Your task to perform on an android device: search for starred emails in the gmail app Image 0: 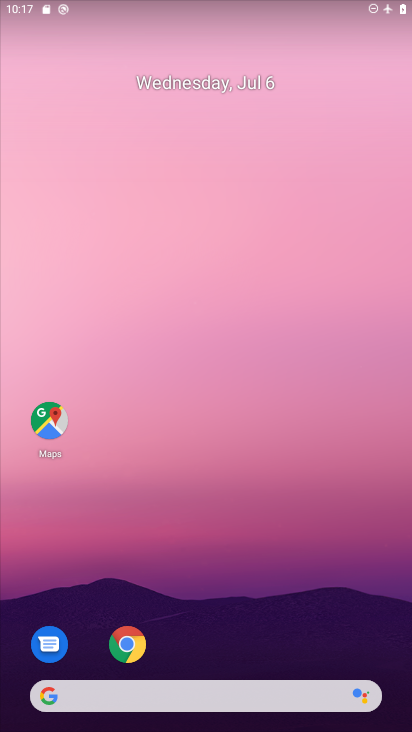
Step 0: drag from (188, 644) to (194, 151)
Your task to perform on an android device: search for starred emails in the gmail app Image 1: 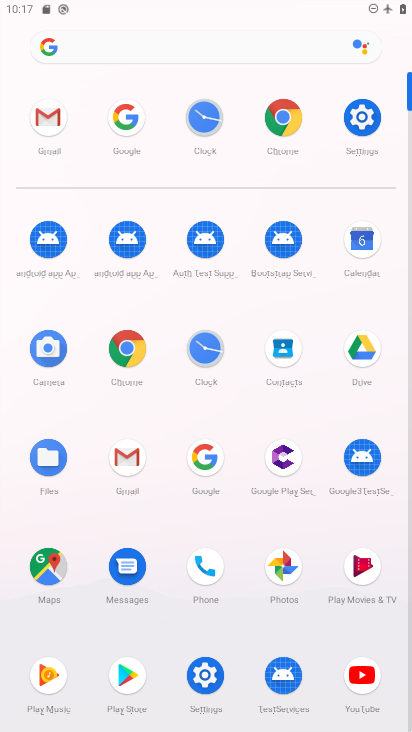
Step 1: click (57, 105)
Your task to perform on an android device: search for starred emails in the gmail app Image 2: 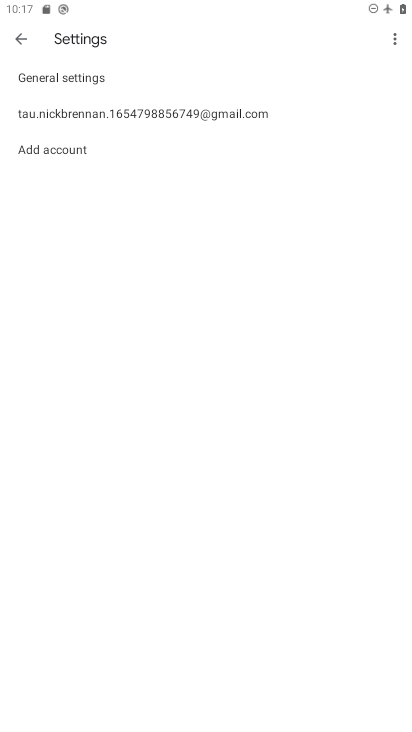
Step 2: click (72, 103)
Your task to perform on an android device: search for starred emails in the gmail app Image 3: 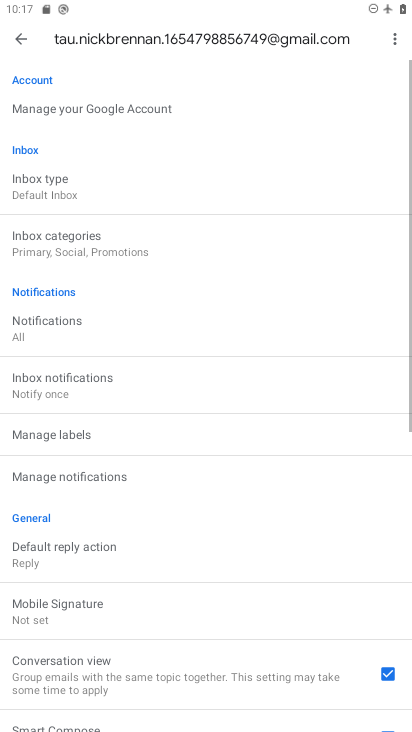
Step 3: click (22, 47)
Your task to perform on an android device: search for starred emails in the gmail app Image 4: 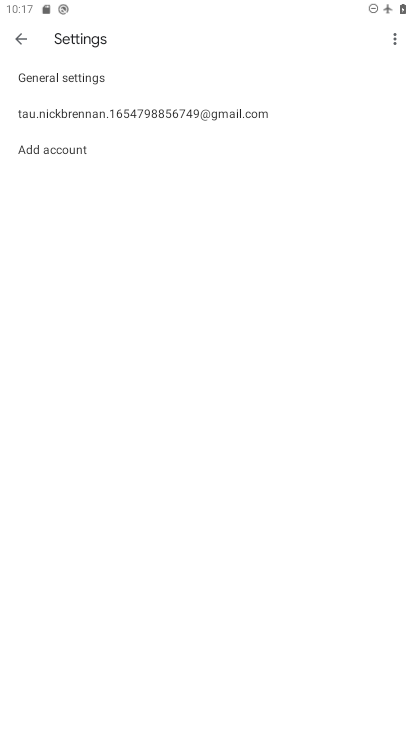
Step 4: click (22, 47)
Your task to perform on an android device: search for starred emails in the gmail app Image 5: 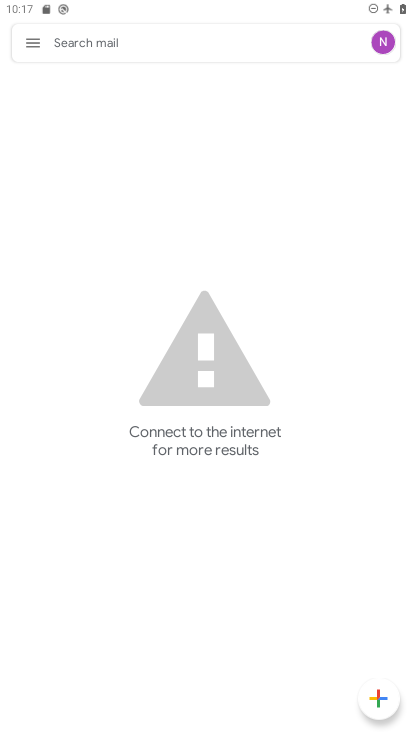
Step 5: click (29, 39)
Your task to perform on an android device: search for starred emails in the gmail app Image 6: 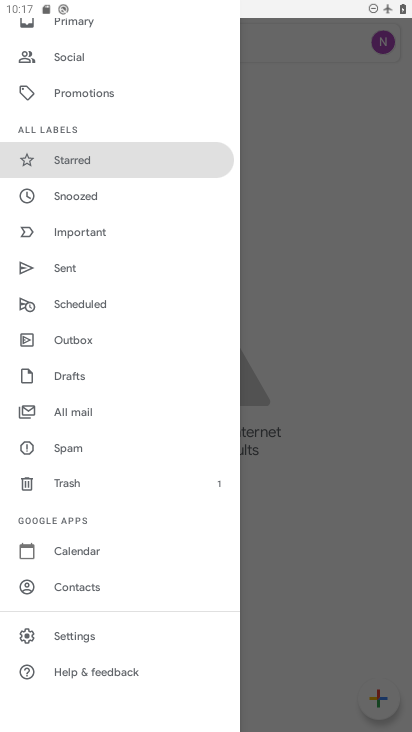
Step 6: click (86, 160)
Your task to perform on an android device: search for starred emails in the gmail app Image 7: 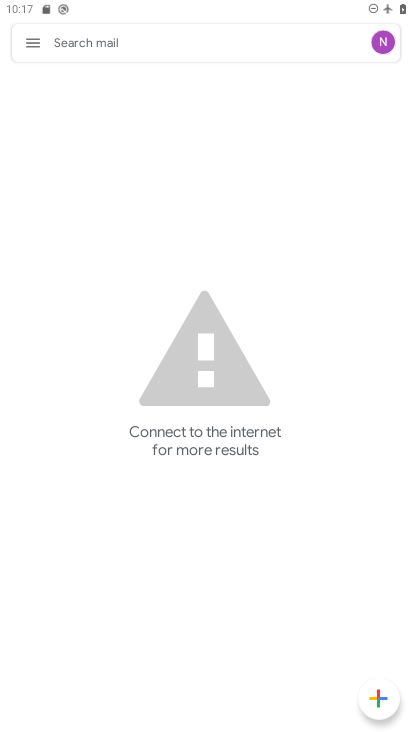
Step 7: task complete